Your task to perform on an android device: Go to wifi settings Image 0: 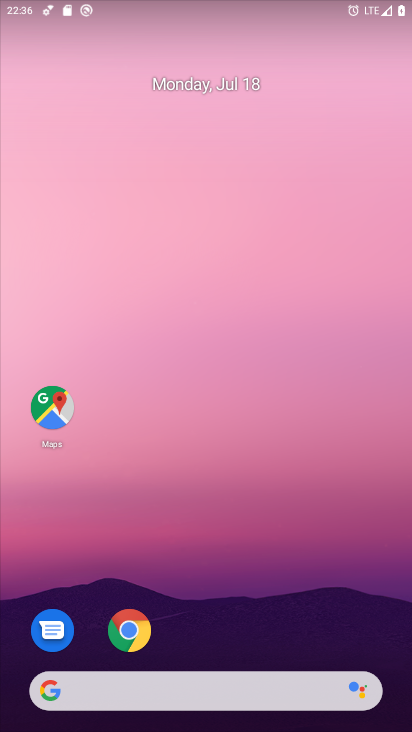
Step 0: drag from (274, 632) to (280, 178)
Your task to perform on an android device: Go to wifi settings Image 1: 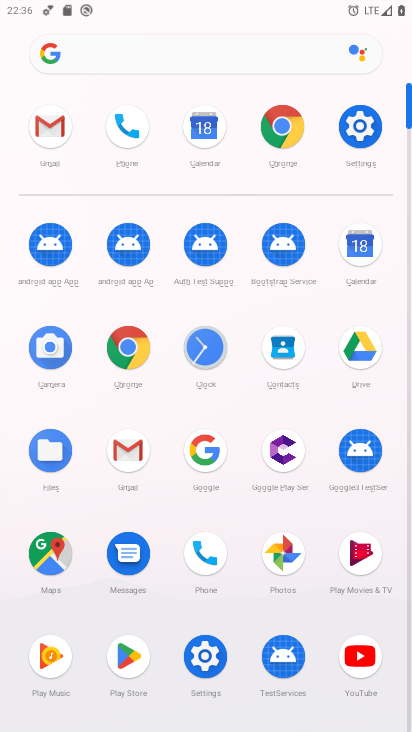
Step 1: click (363, 108)
Your task to perform on an android device: Go to wifi settings Image 2: 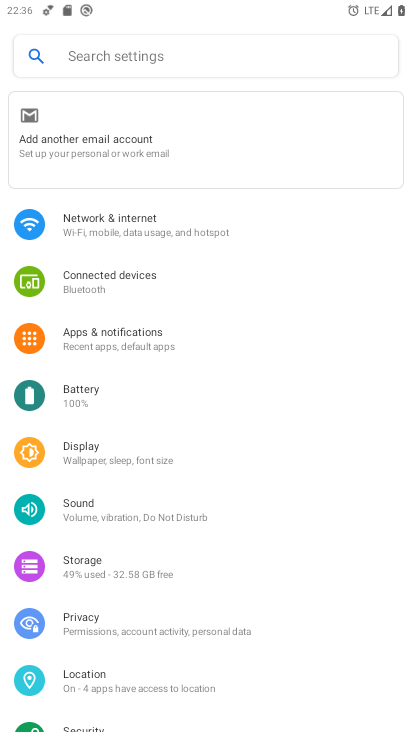
Step 2: click (112, 213)
Your task to perform on an android device: Go to wifi settings Image 3: 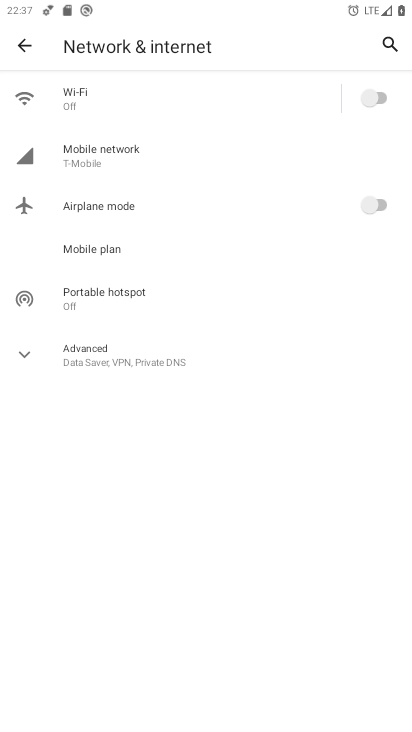
Step 3: click (204, 99)
Your task to perform on an android device: Go to wifi settings Image 4: 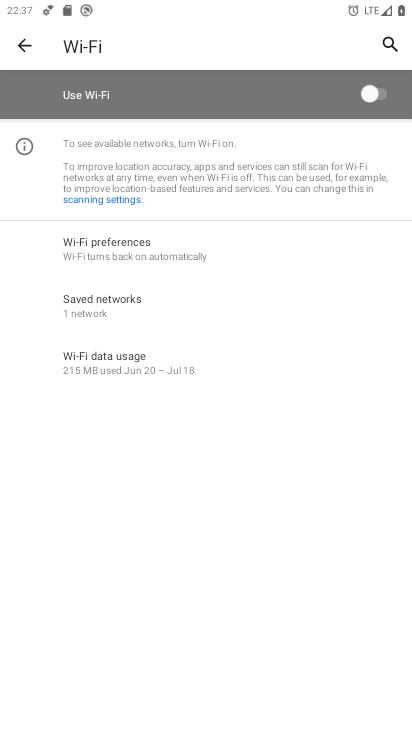
Step 4: task complete